Your task to perform on an android device: Open settings Image 0: 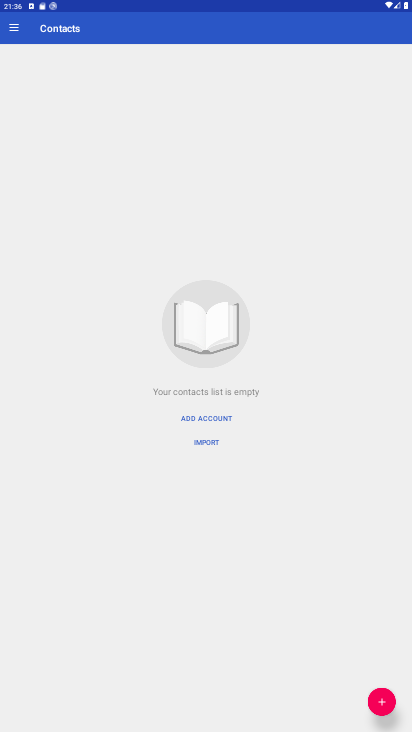
Step 0: press home button
Your task to perform on an android device: Open settings Image 1: 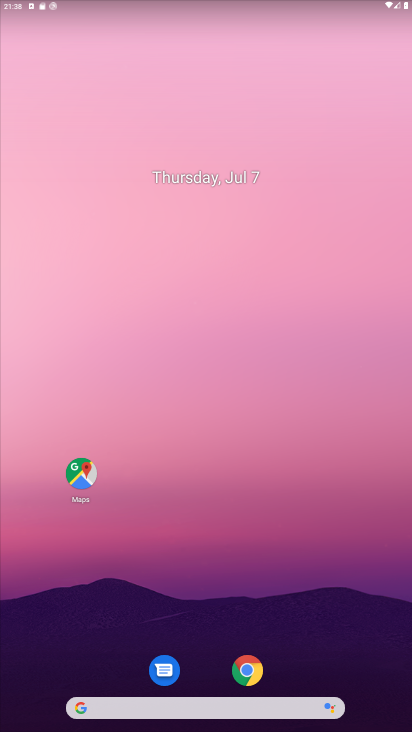
Step 1: drag from (94, 524) to (236, 104)
Your task to perform on an android device: Open settings Image 2: 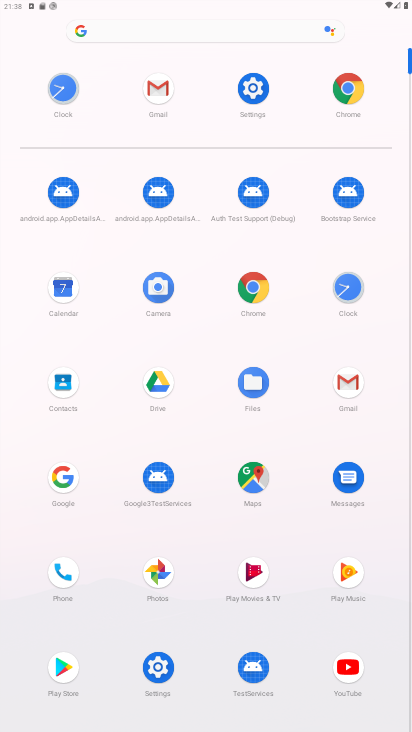
Step 2: click (147, 676)
Your task to perform on an android device: Open settings Image 3: 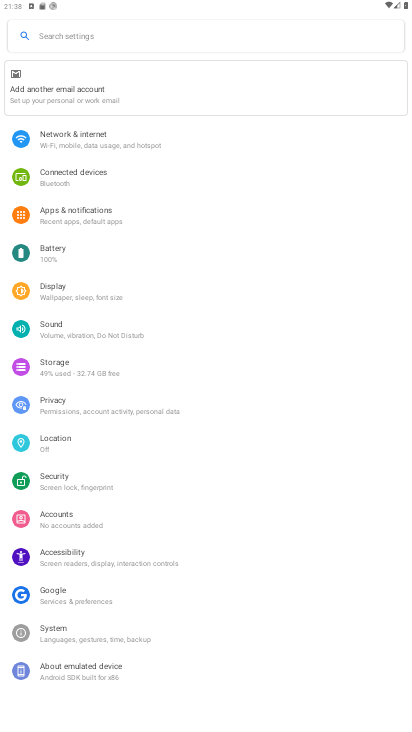
Step 3: task complete